Your task to perform on an android device: Go to Amazon Image 0: 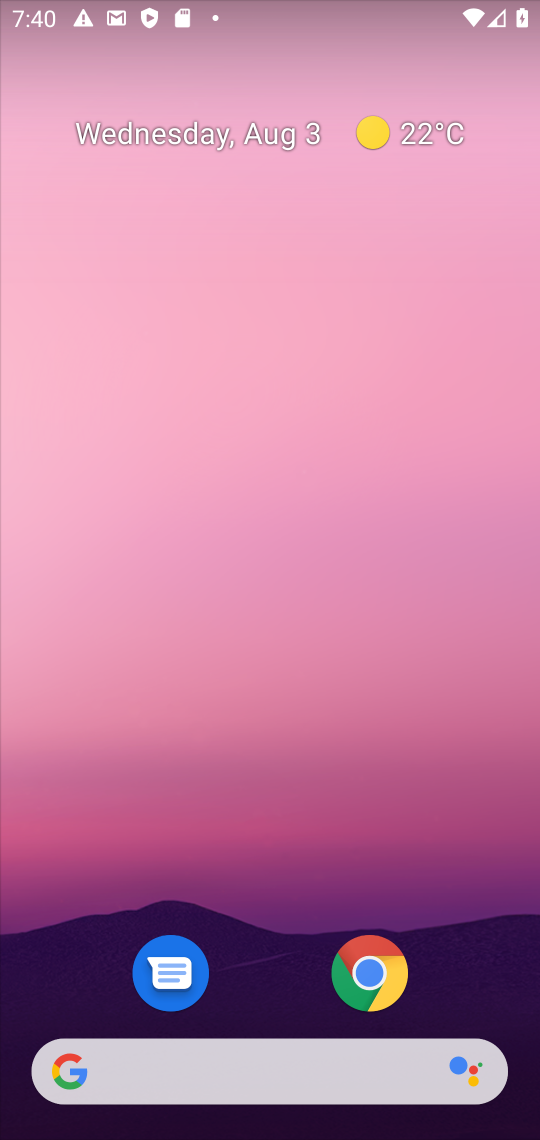
Step 0: click (370, 958)
Your task to perform on an android device: Go to Amazon Image 1: 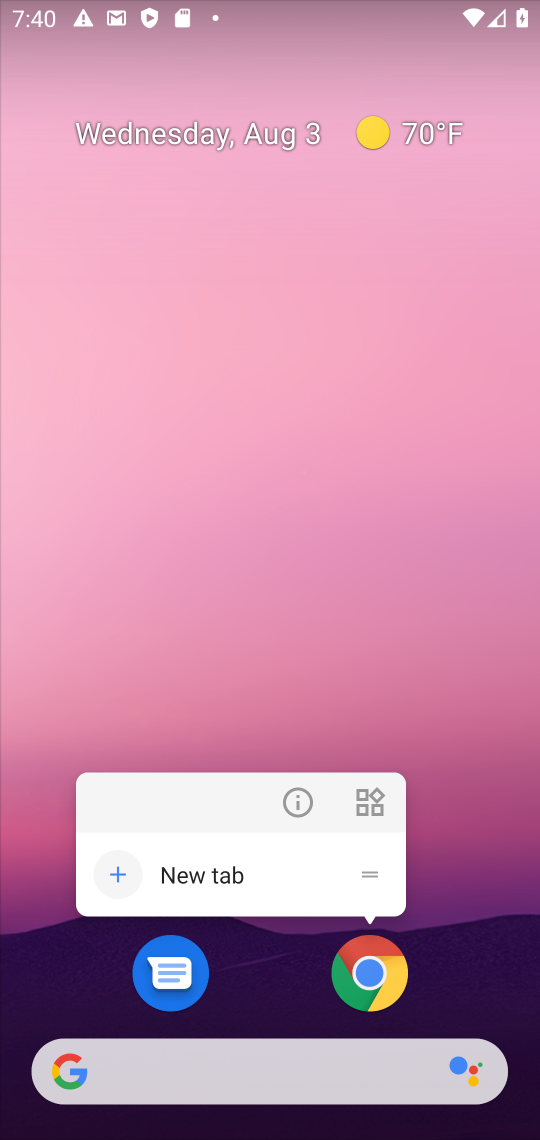
Step 1: click (366, 967)
Your task to perform on an android device: Go to Amazon Image 2: 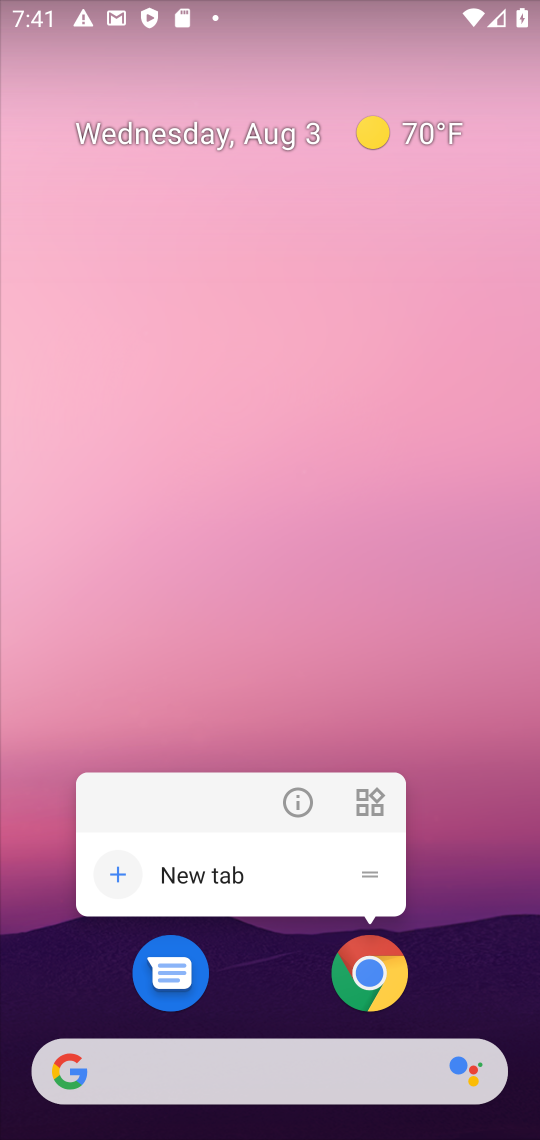
Step 2: click (366, 963)
Your task to perform on an android device: Go to Amazon Image 3: 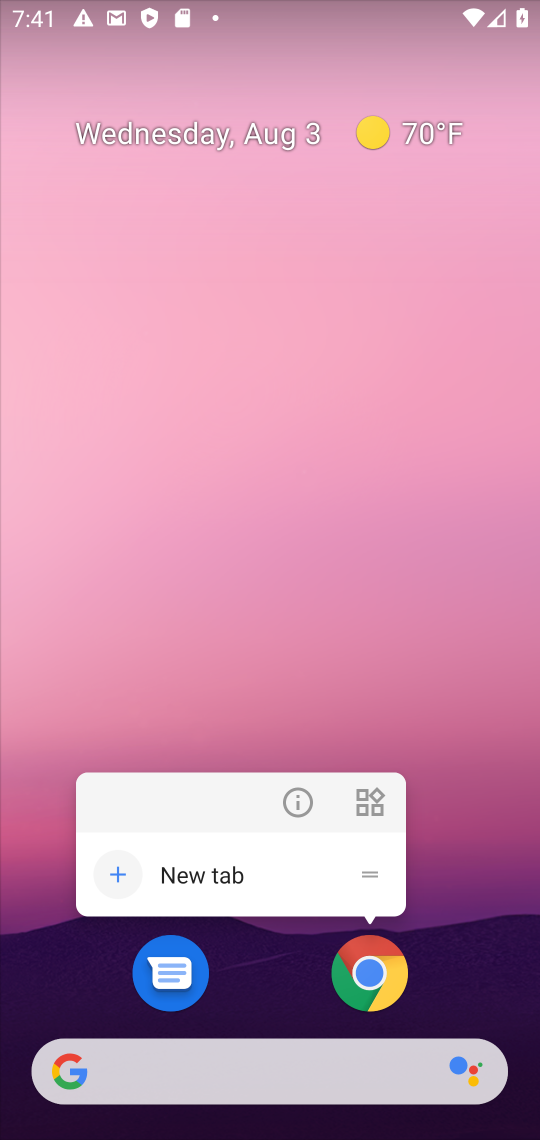
Step 3: click (448, 981)
Your task to perform on an android device: Go to Amazon Image 4: 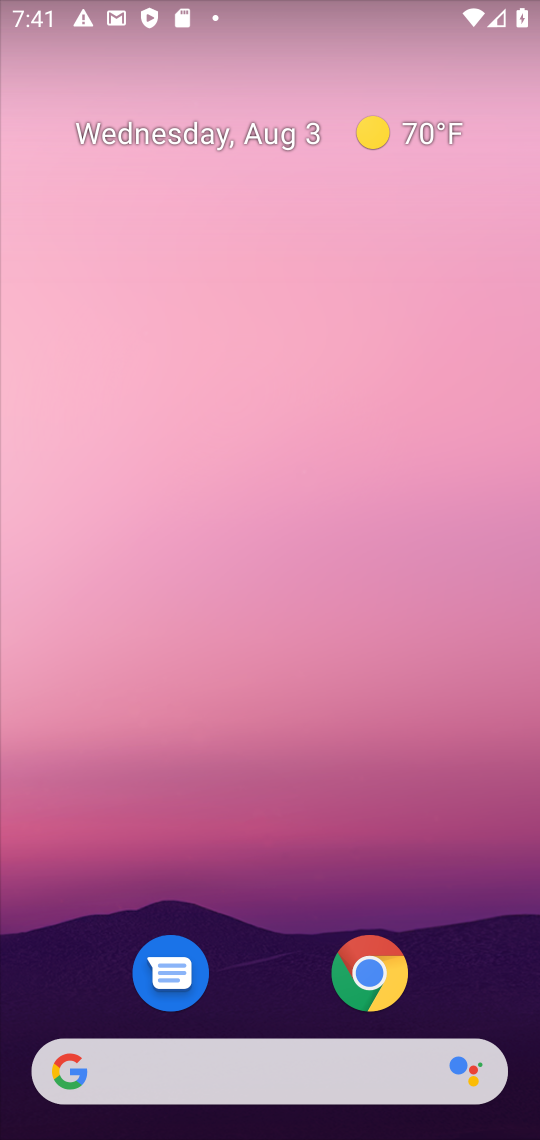
Step 4: drag from (453, 1001) to (430, 51)
Your task to perform on an android device: Go to Amazon Image 5: 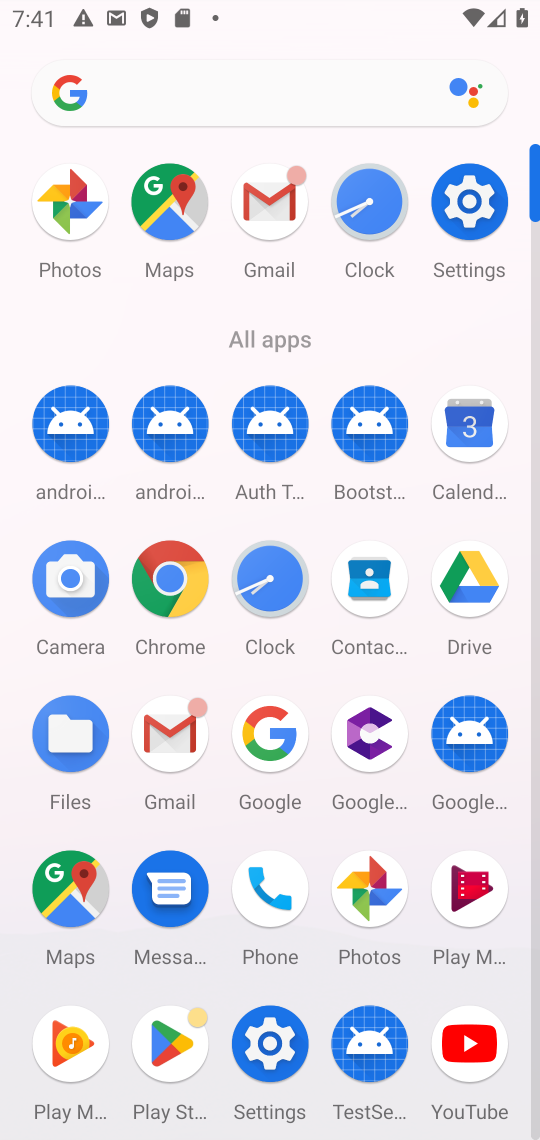
Step 5: click (162, 565)
Your task to perform on an android device: Go to Amazon Image 6: 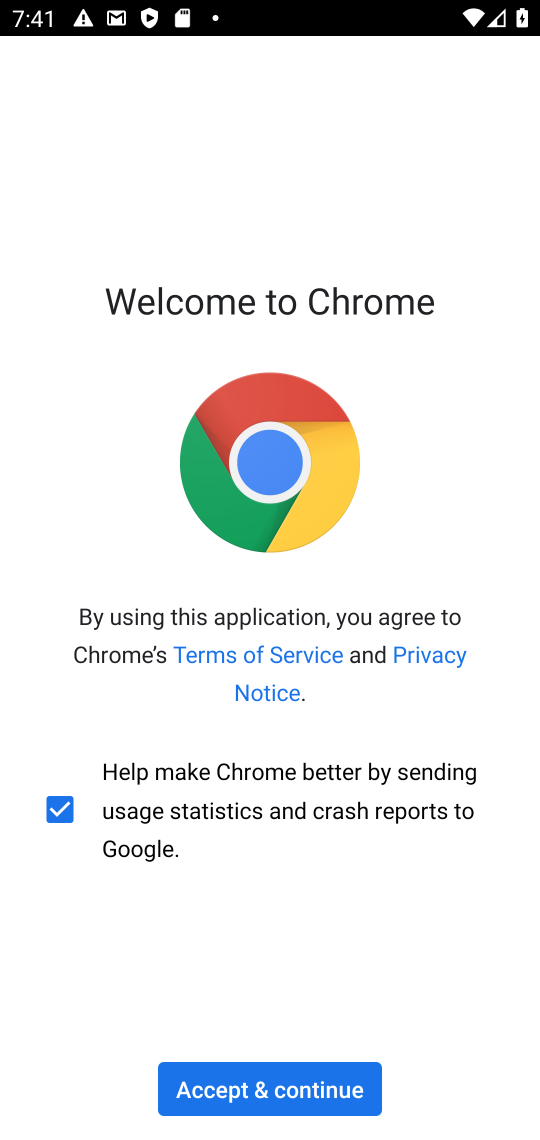
Step 6: click (264, 1079)
Your task to perform on an android device: Go to Amazon Image 7: 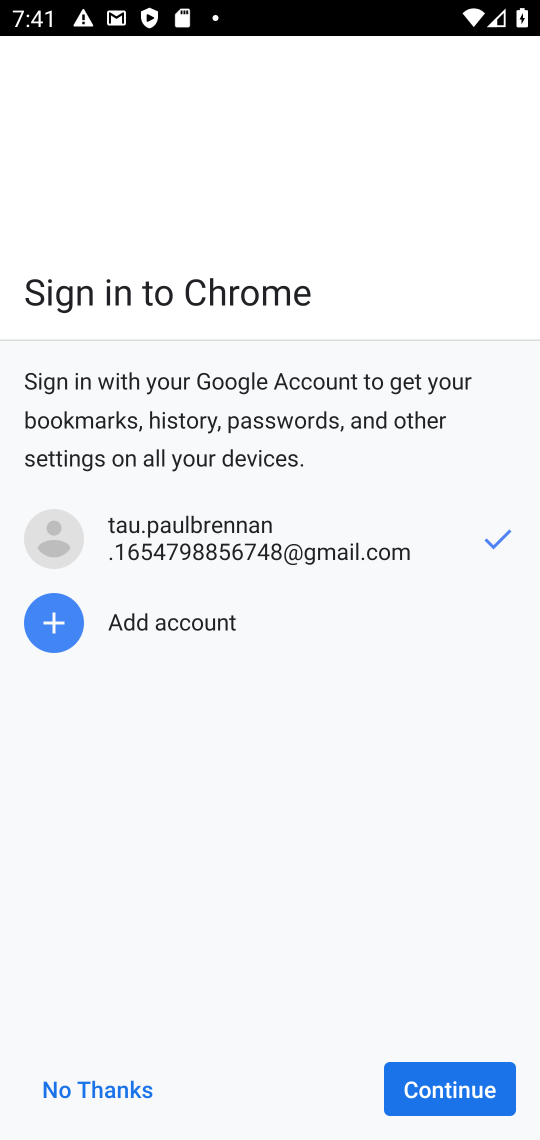
Step 7: click (460, 1082)
Your task to perform on an android device: Go to Amazon Image 8: 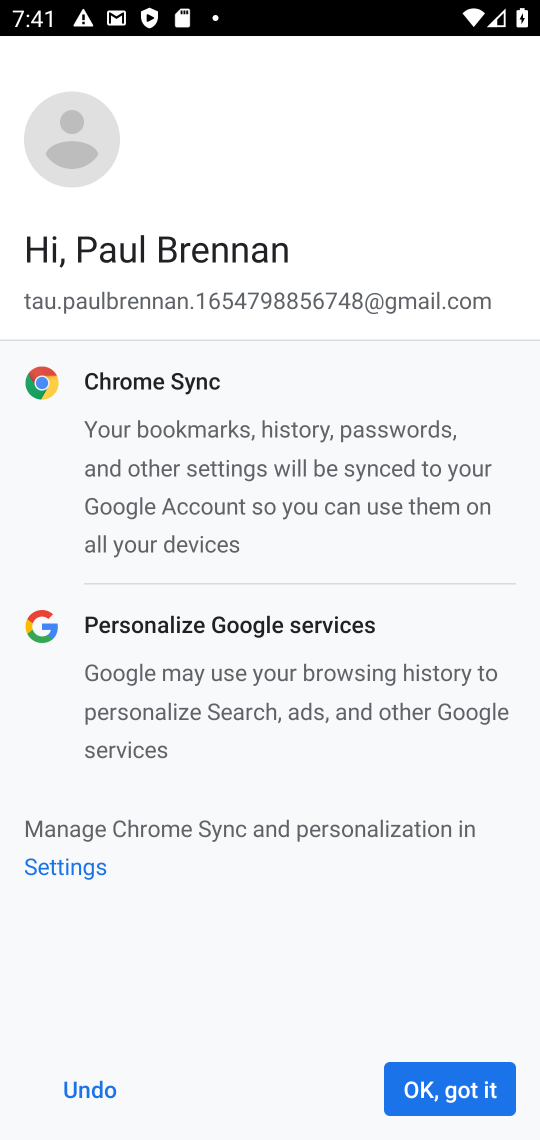
Step 8: click (449, 1076)
Your task to perform on an android device: Go to Amazon Image 9: 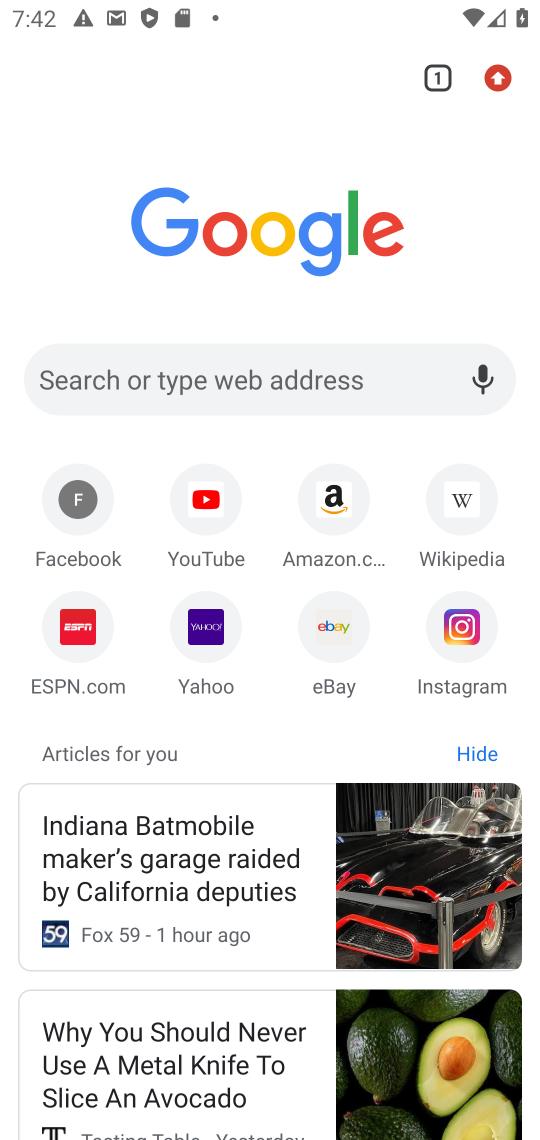
Step 9: click (334, 492)
Your task to perform on an android device: Go to Amazon Image 10: 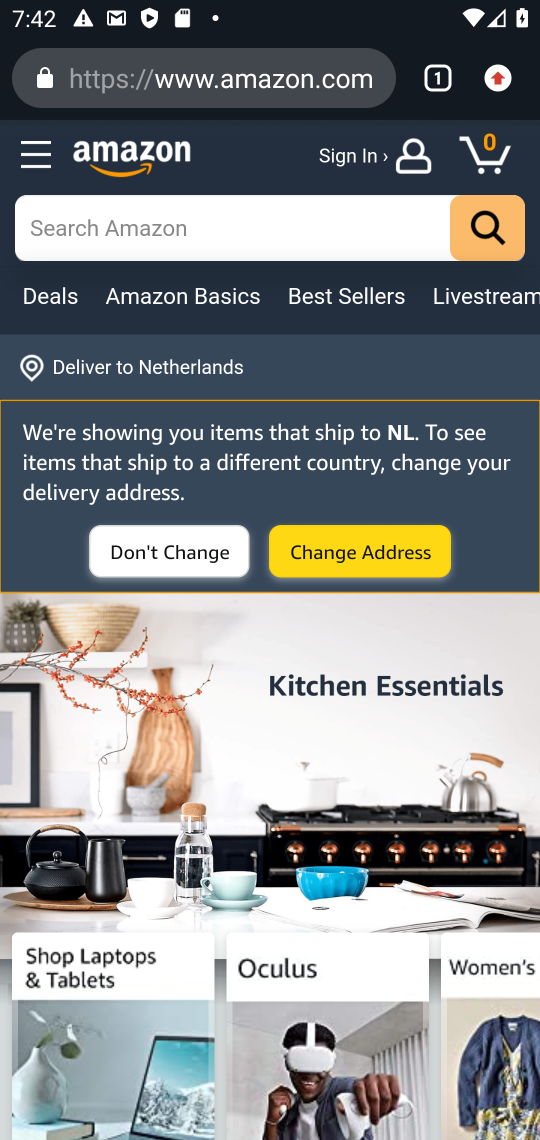
Step 10: task complete